Your task to perform on an android device: What is the news today? Image 0: 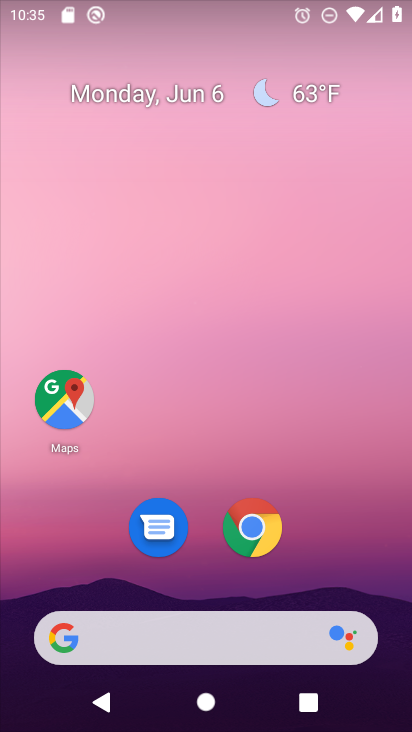
Step 0: drag from (1, 259) to (407, 340)
Your task to perform on an android device: What is the news today? Image 1: 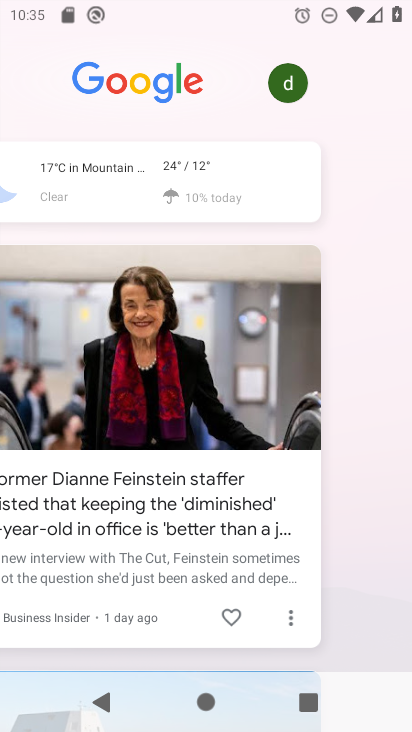
Step 1: task complete